Your task to perform on an android device: Is it going to rain today? Image 0: 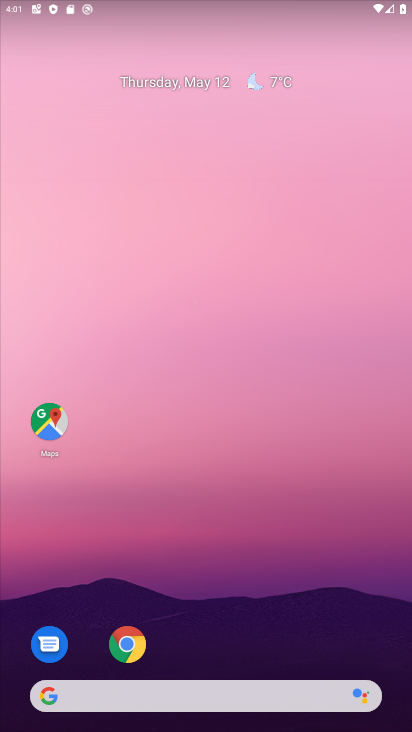
Step 0: drag from (222, 658) to (236, 133)
Your task to perform on an android device: Is it going to rain today? Image 1: 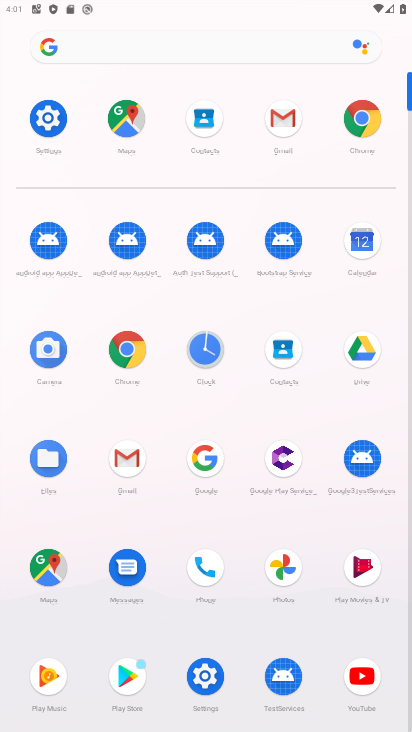
Step 1: press home button
Your task to perform on an android device: Is it going to rain today? Image 2: 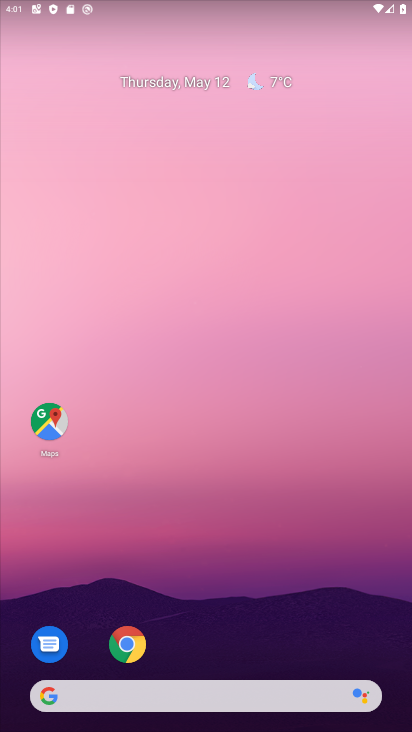
Step 2: click (277, 79)
Your task to perform on an android device: Is it going to rain today? Image 3: 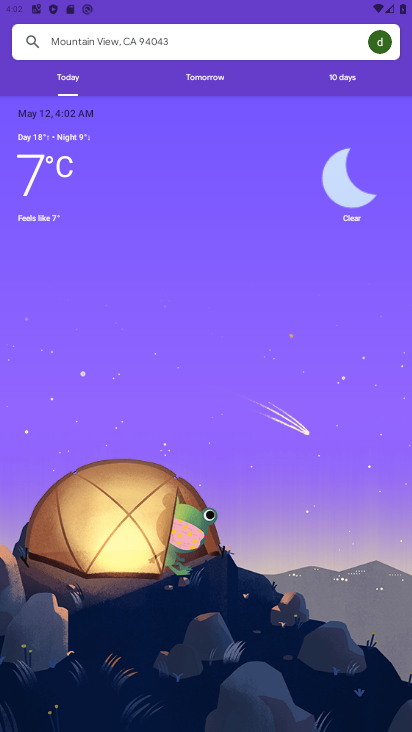
Step 3: task complete